Your task to perform on an android device: turn off data saver in the chrome app Image 0: 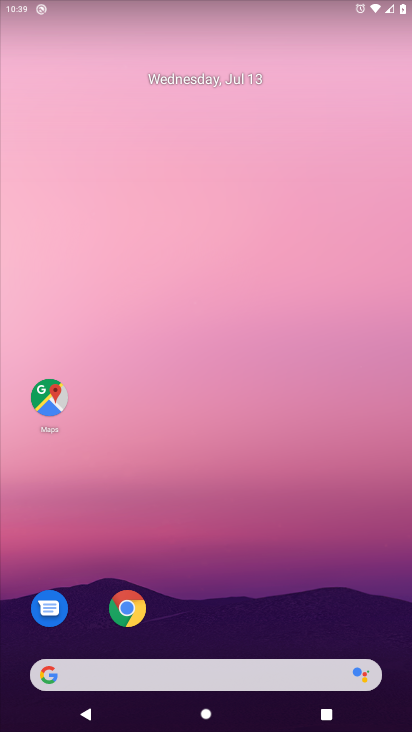
Step 0: click (111, 603)
Your task to perform on an android device: turn off data saver in the chrome app Image 1: 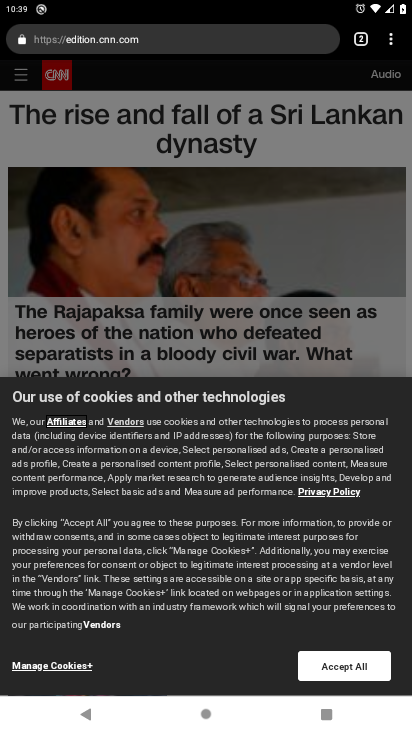
Step 1: click (394, 36)
Your task to perform on an android device: turn off data saver in the chrome app Image 2: 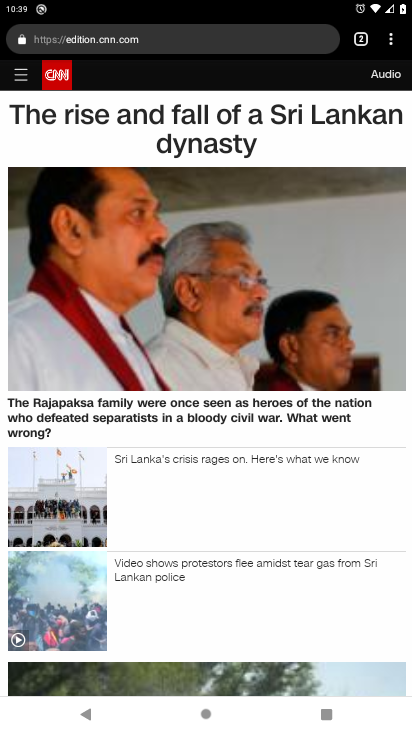
Step 2: task complete